Your task to perform on an android device: turn on translation in the chrome app Image 0: 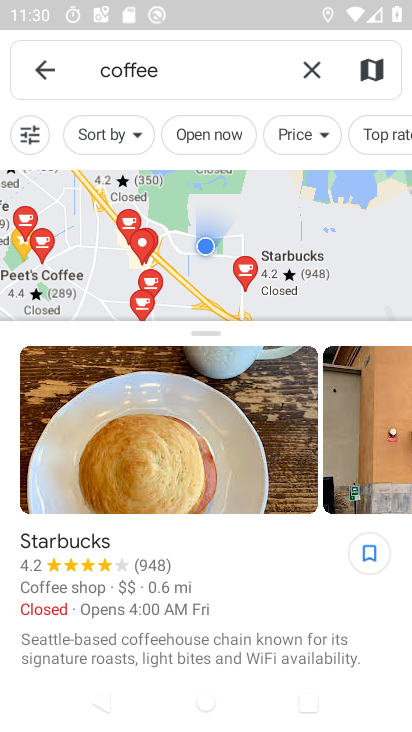
Step 0: press home button
Your task to perform on an android device: turn on translation in the chrome app Image 1: 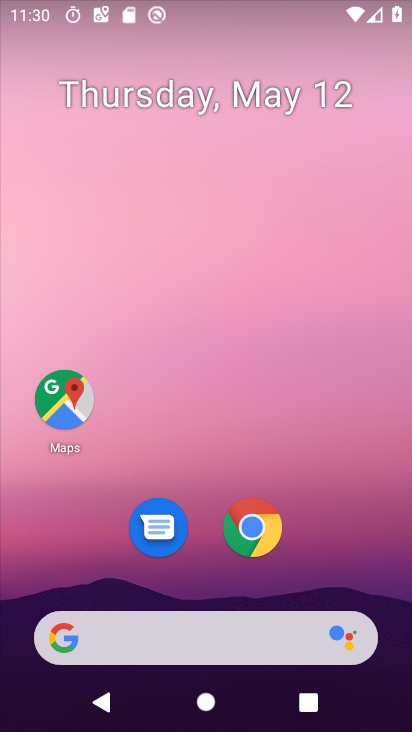
Step 1: click (247, 543)
Your task to perform on an android device: turn on translation in the chrome app Image 2: 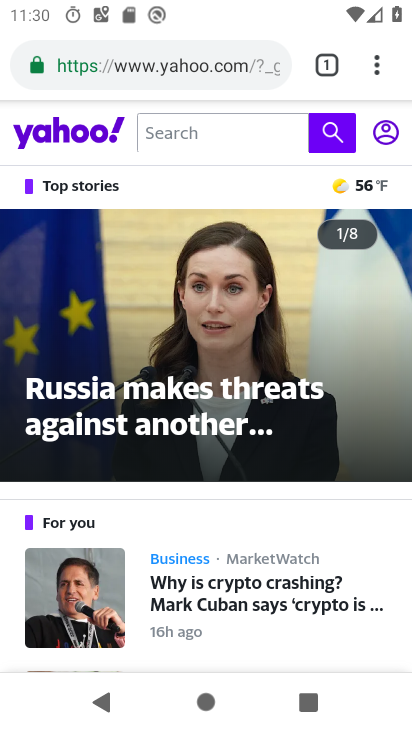
Step 2: click (379, 60)
Your task to perform on an android device: turn on translation in the chrome app Image 3: 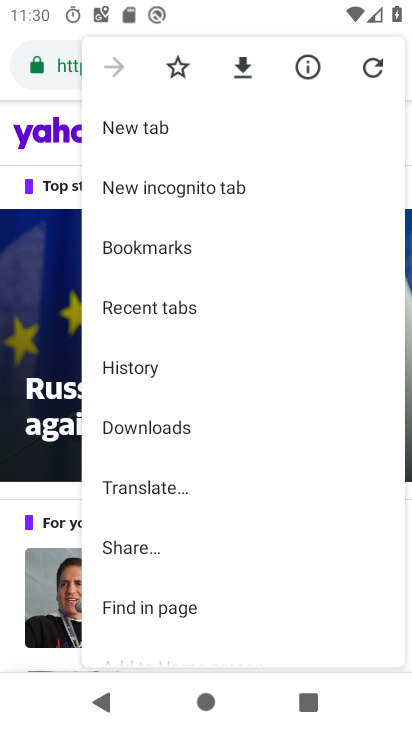
Step 3: drag from (183, 581) to (165, 295)
Your task to perform on an android device: turn on translation in the chrome app Image 4: 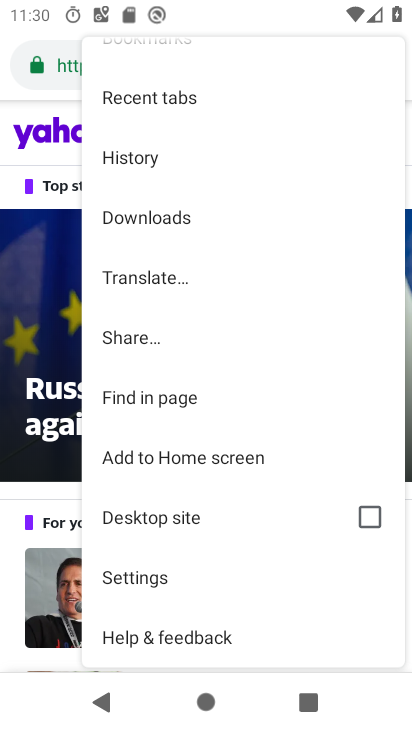
Step 4: click (146, 589)
Your task to perform on an android device: turn on translation in the chrome app Image 5: 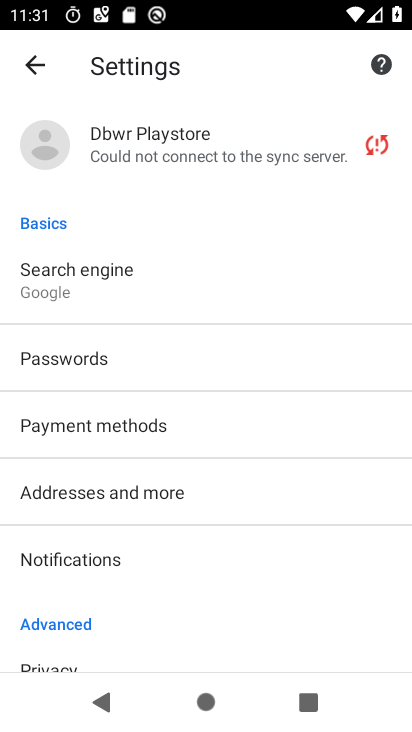
Step 5: drag from (141, 585) to (157, 340)
Your task to perform on an android device: turn on translation in the chrome app Image 6: 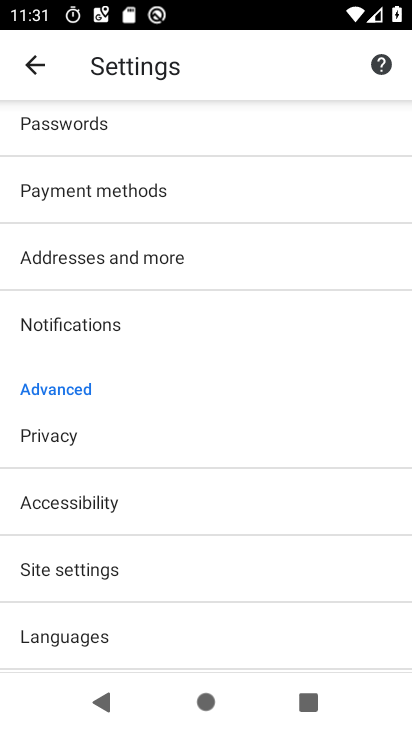
Step 6: click (89, 635)
Your task to perform on an android device: turn on translation in the chrome app Image 7: 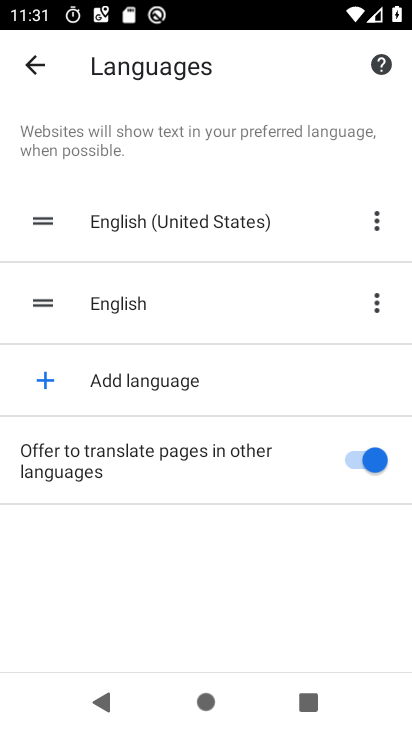
Step 7: task complete